Your task to perform on an android device: Open wifi settings Image 0: 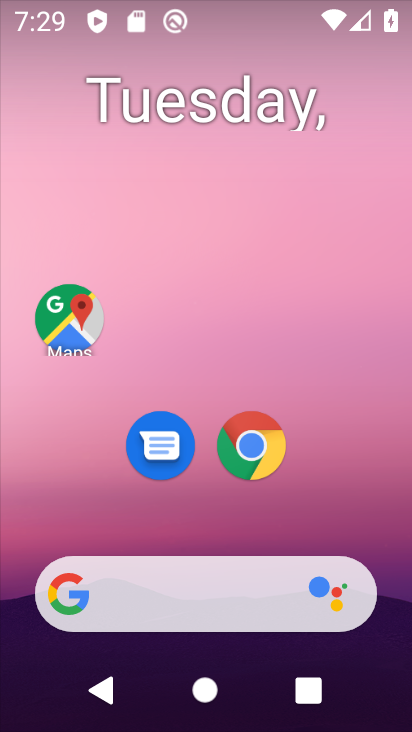
Step 0: drag from (199, 528) to (220, 79)
Your task to perform on an android device: Open wifi settings Image 1: 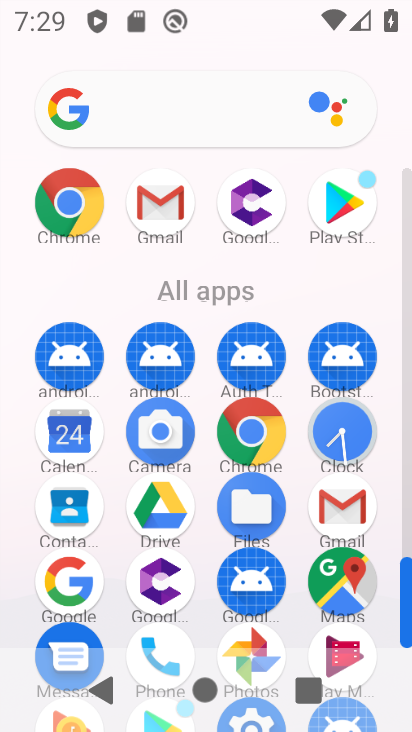
Step 1: drag from (267, 623) to (270, 248)
Your task to perform on an android device: Open wifi settings Image 2: 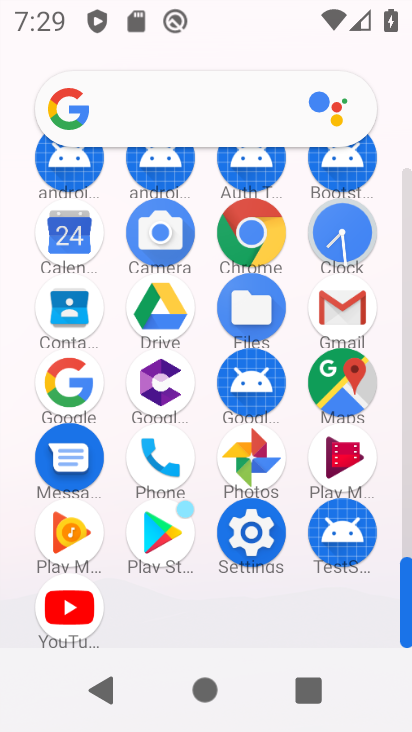
Step 2: click (233, 538)
Your task to perform on an android device: Open wifi settings Image 3: 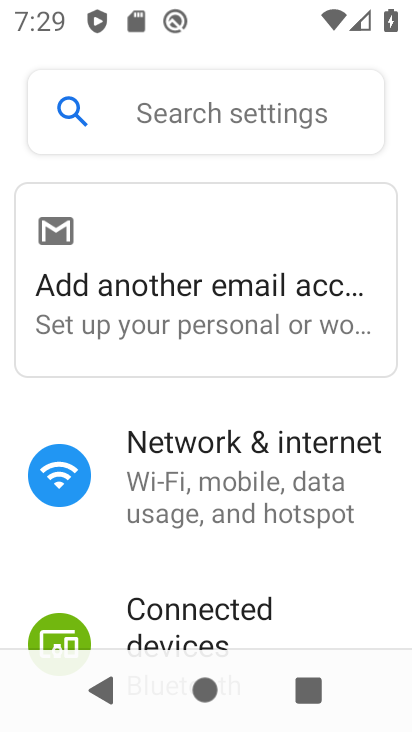
Step 3: click (234, 497)
Your task to perform on an android device: Open wifi settings Image 4: 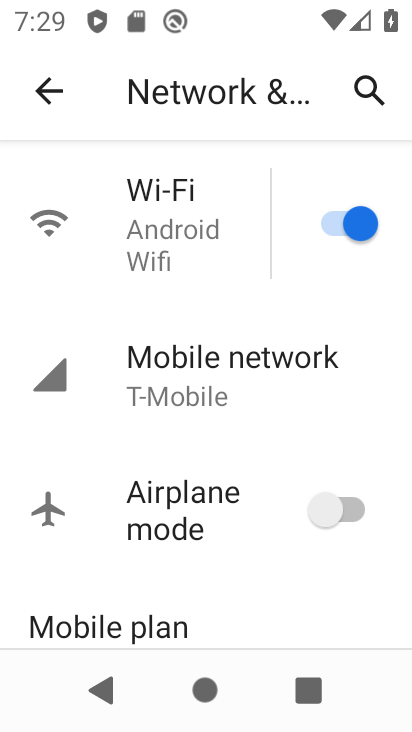
Step 4: click (162, 215)
Your task to perform on an android device: Open wifi settings Image 5: 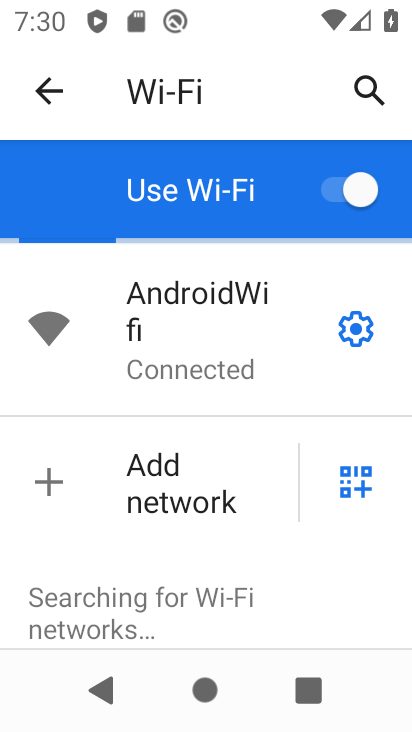
Step 5: task complete